Your task to perform on an android device: open sync settings in chrome Image 0: 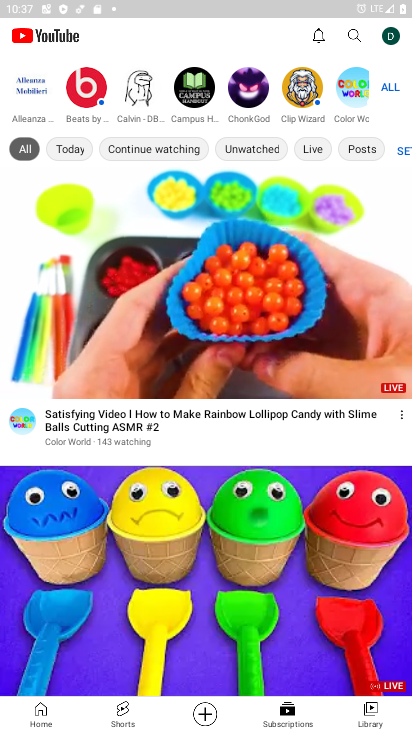
Step 0: press home button
Your task to perform on an android device: open sync settings in chrome Image 1: 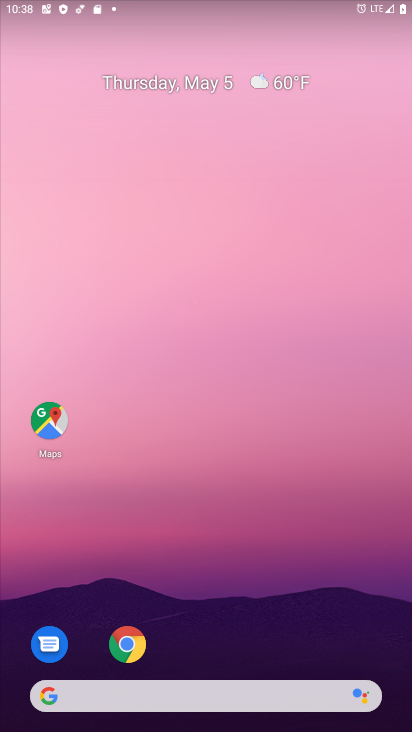
Step 1: drag from (191, 609) to (201, 148)
Your task to perform on an android device: open sync settings in chrome Image 2: 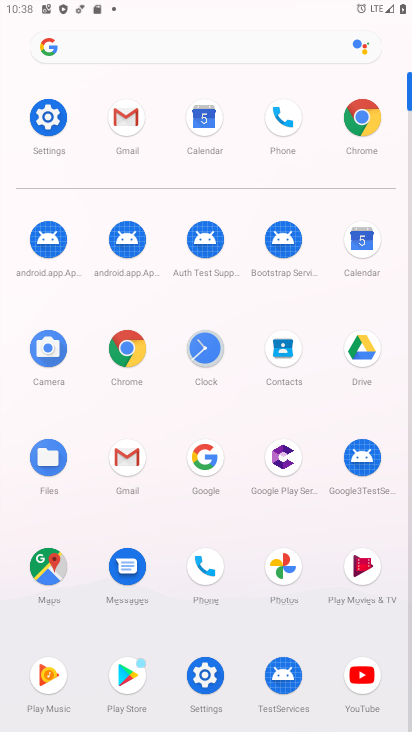
Step 2: click (374, 119)
Your task to perform on an android device: open sync settings in chrome Image 3: 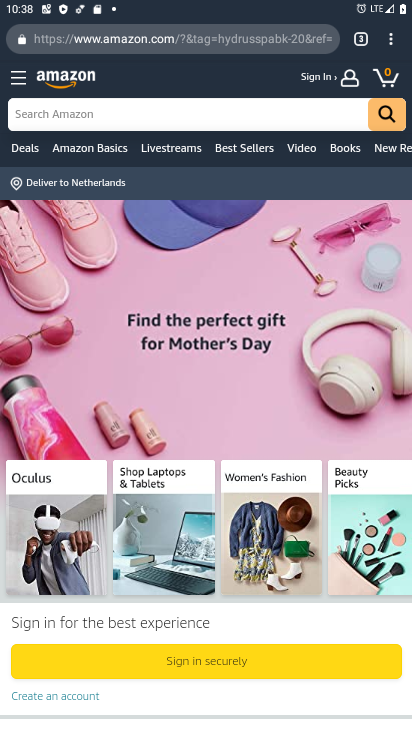
Step 3: drag from (396, 41) to (275, 475)
Your task to perform on an android device: open sync settings in chrome Image 4: 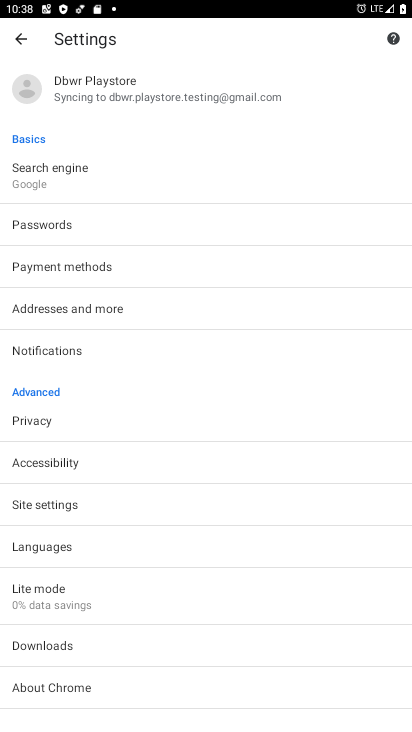
Step 4: drag from (100, 647) to (132, 229)
Your task to perform on an android device: open sync settings in chrome Image 5: 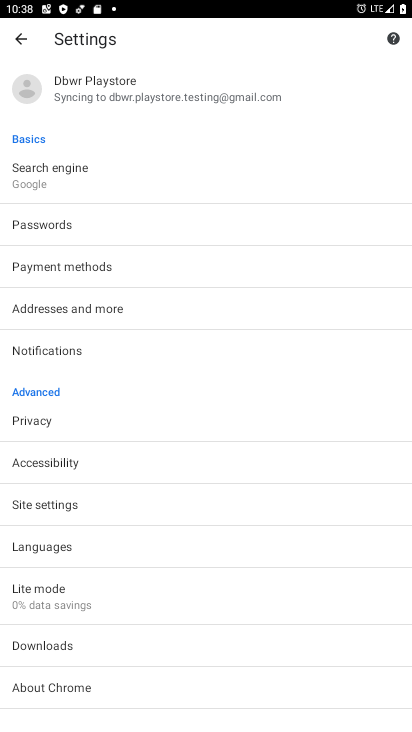
Step 5: drag from (116, 664) to (125, 301)
Your task to perform on an android device: open sync settings in chrome Image 6: 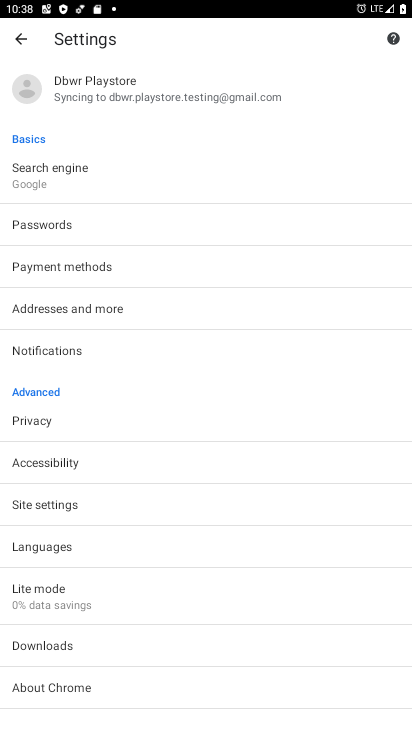
Step 6: click (52, 505)
Your task to perform on an android device: open sync settings in chrome Image 7: 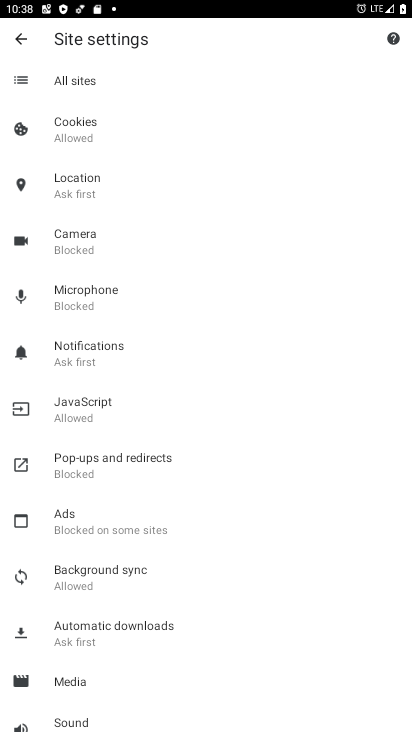
Step 7: click (98, 577)
Your task to perform on an android device: open sync settings in chrome Image 8: 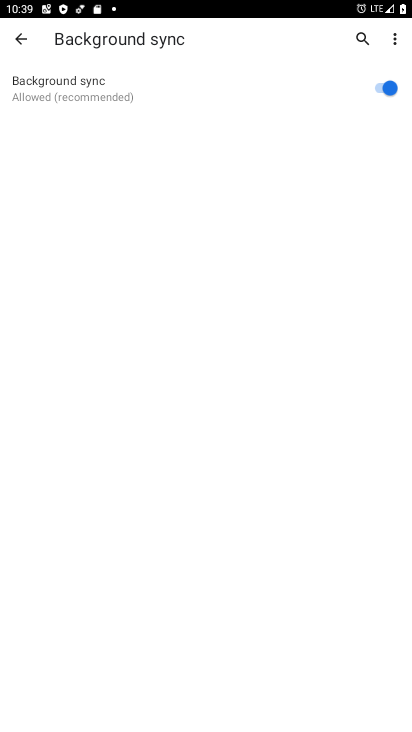
Step 8: task complete